Your task to perform on an android device: Search for "apple airpods" on newegg, select the first entry, and add it to the cart. Image 0: 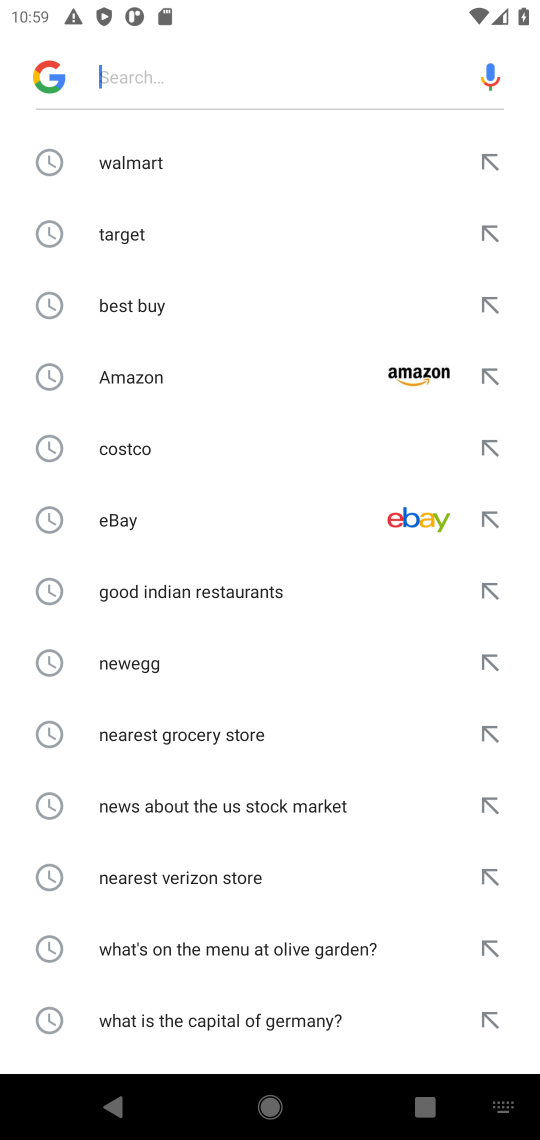
Step 0: press home button
Your task to perform on an android device: Search for "apple airpods" on newegg, select the first entry, and add it to the cart. Image 1: 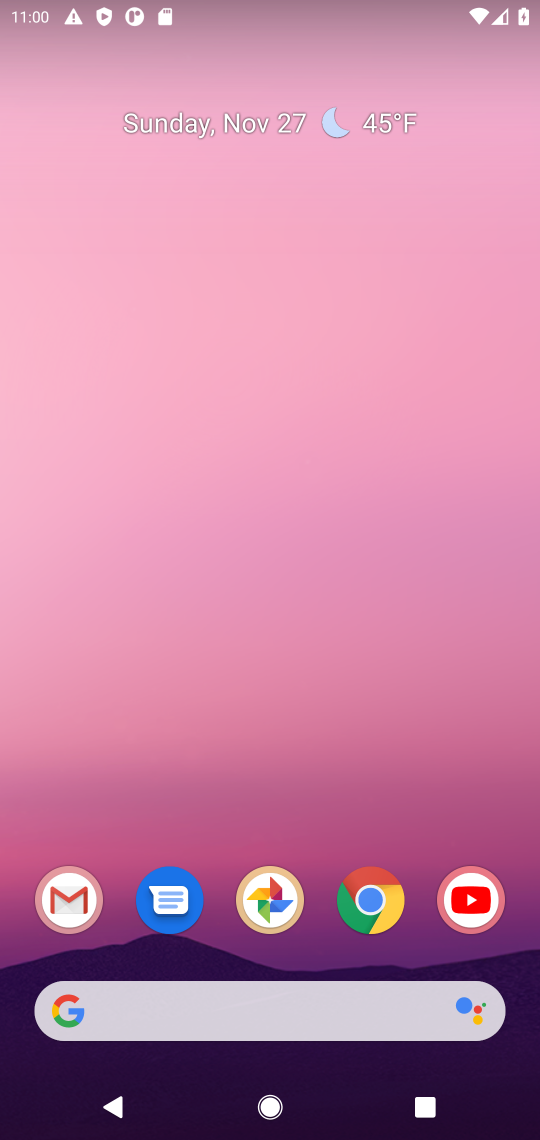
Step 1: click (368, 901)
Your task to perform on an android device: Search for "apple airpods" on newegg, select the first entry, and add it to the cart. Image 2: 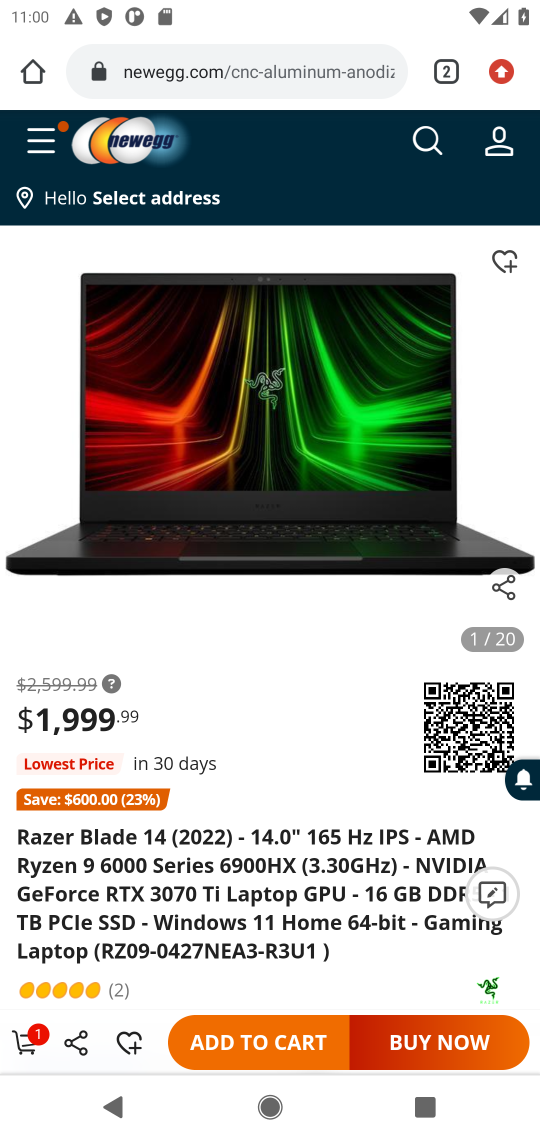
Step 2: click (424, 139)
Your task to perform on an android device: Search for "apple airpods" on newegg, select the first entry, and add it to the cart. Image 3: 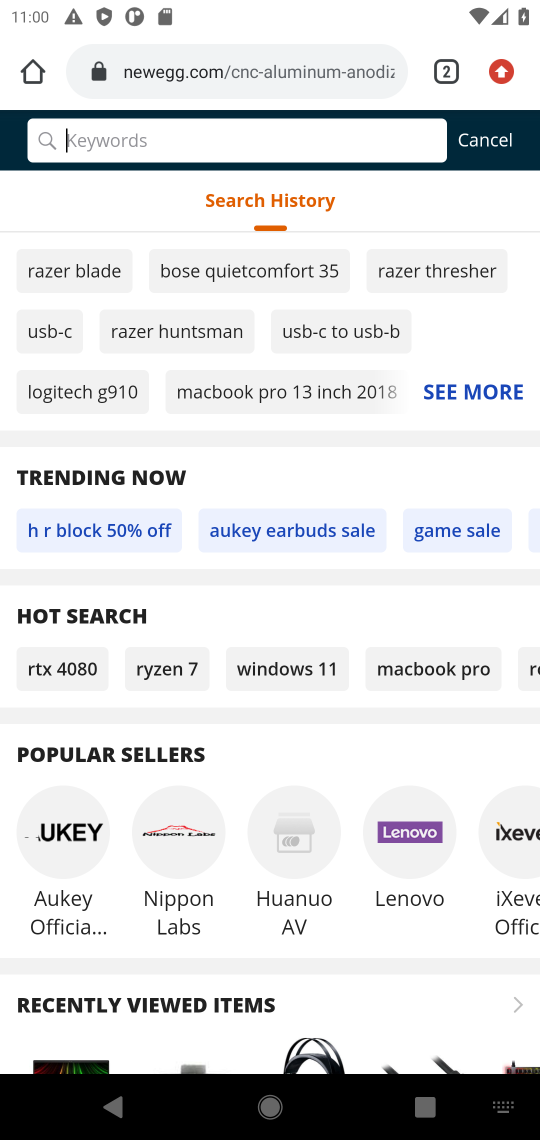
Step 3: type "apple airpods"
Your task to perform on an android device: Search for "apple airpods" on newegg, select the first entry, and add it to the cart. Image 4: 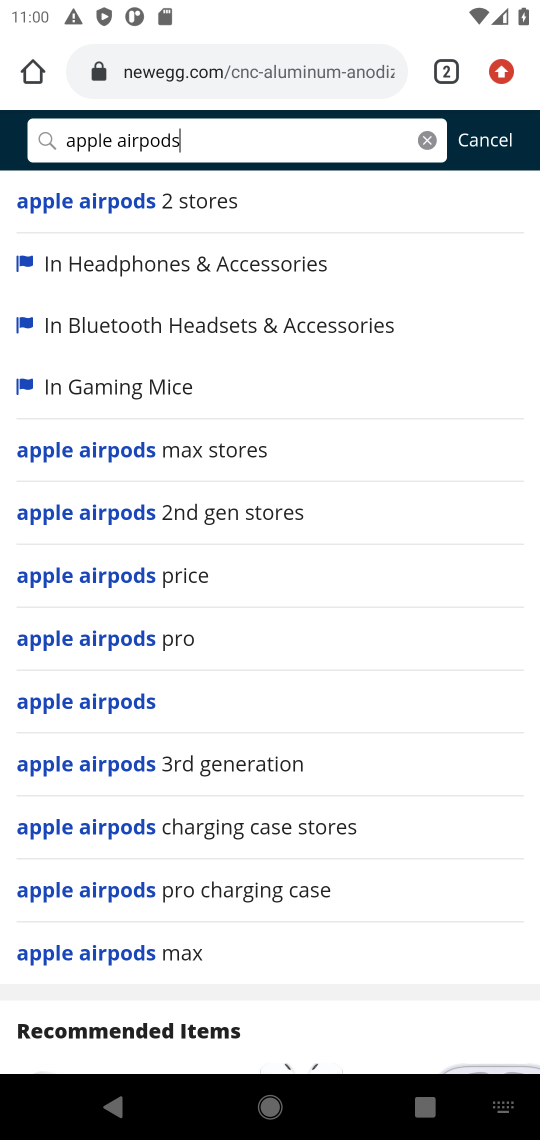
Step 4: click (98, 705)
Your task to perform on an android device: Search for "apple airpods" on newegg, select the first entry, and add it to the cart. Image 5: 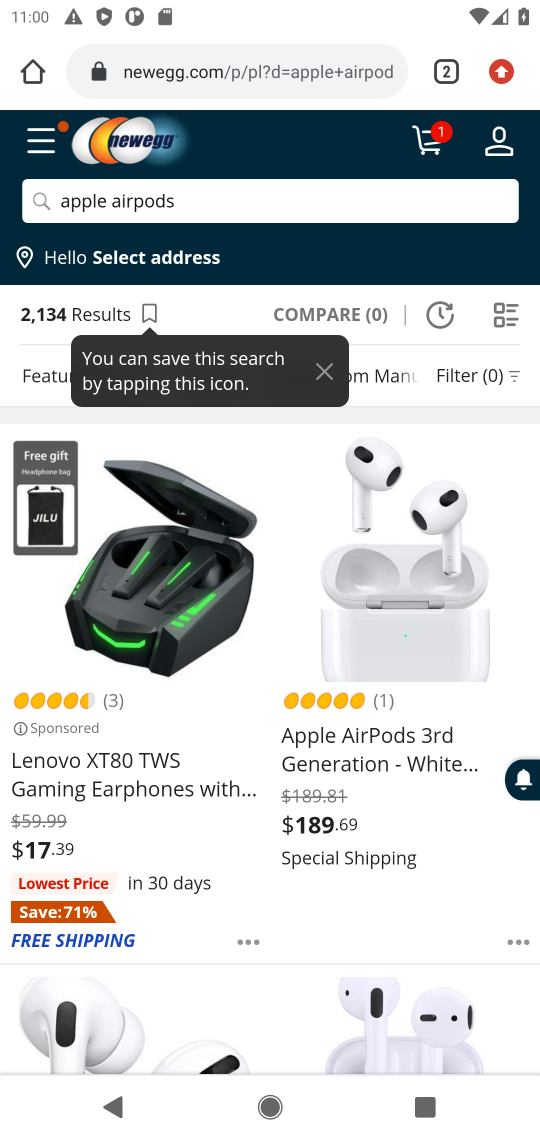
Step 5: task complete